Your task to perform on an android device: Search for "macbook pro 13 inch" on bestbuy.com, select the first entry, add it to the cart, then select checkout. Image 0: 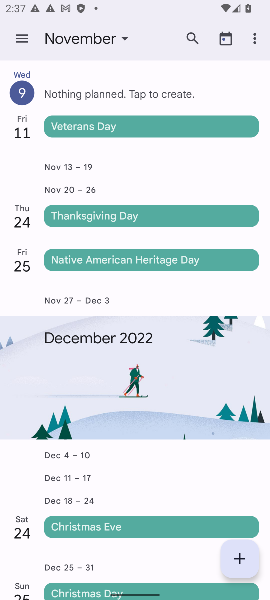
Step 0: press home button
Your task to perform on an android device: Search for "macbook pro 13 inch" on bestbuy.com, select the first entry, add it to the cart, then select checkout. Image 1: 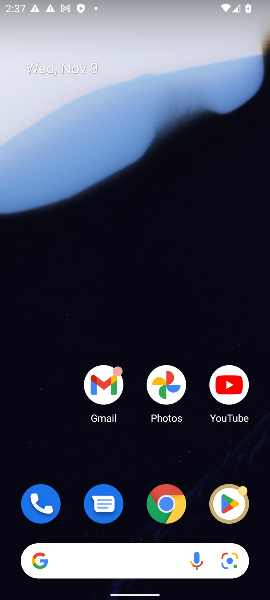
Step 1: click (167, 510)
Your task to perform on an android device: Search for "macbook pro 13 inch" on bestbuy.com, select the first entry, add it to the cart, then select checkout. Image 2: 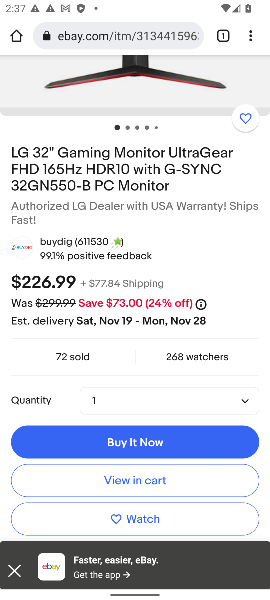
Step 2: click (93, 34)
Your task to perform on an android device: Search for "macbook pro 13 inch" on bestbuy.com, select the first entry, add it to the cart, then select checkout. Image 3: 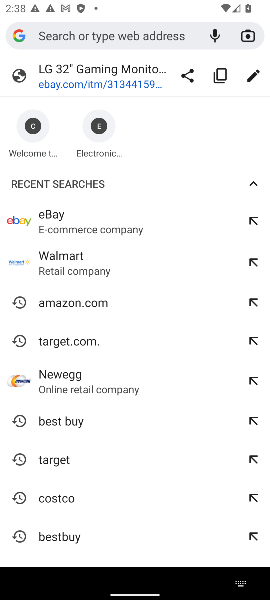
Step 3: type "bestbuy.com"
Your task to perform on an android device: Search for "macbook pro 13 inch" on bestbuy.com, select the first entry, add it to the cart, then select checkout. Image 4: 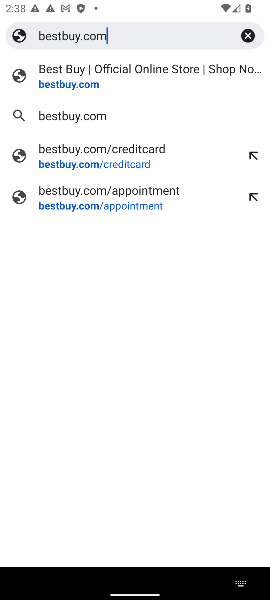
Step 4: click (65, 83)
Your task to perform on an android device: Search for "macbook pro 13 inch" on bestbuy.com, select the first entry, add it to the cart, then select checkout. Image 5: 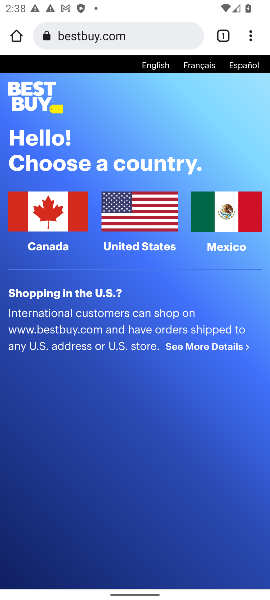
Step 5: click (128, 228)
Your task to perform on an android device: Search for "macbook pro 13 inch" on bestbuy.com, select the first entry, add it to the cart, then select checkout. Image 6: 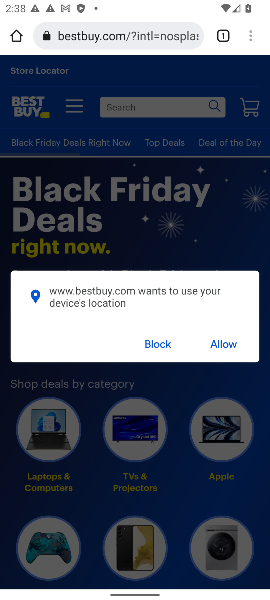
Step 6: click (151, 346)
Your task to perform on an android device: Search for "macbook pro 13 inch" on bestbuy.com, select the first entry, add it to the cart, then select checkout. Image 7: 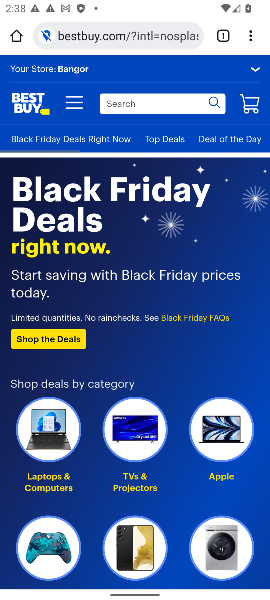
Step 7: click (128, 104)
Your task to perform on an android device: Search for "macbook pro 13 inch" on bestbuy.com, select the first entry, add it to the cart, then select checkout. Image 8: 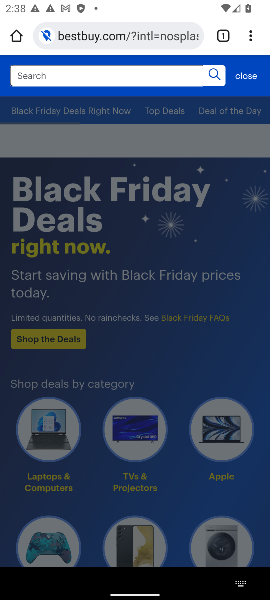
Step 8: type "macbook pro 13 inch"
Your task to perform on an android device: Search for "macbook pro 13 inch" on bestbuy.com, select the first entry, add it to the cart, then select checkout. Image 9: 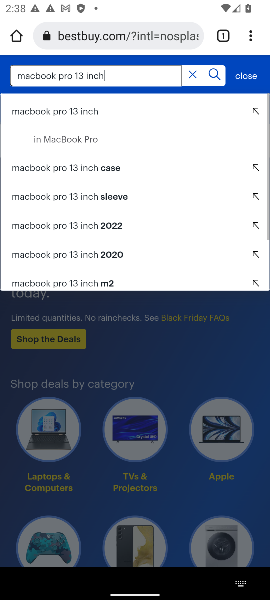
Step 9: click (47, 115)
Your task to perform on an android device: Search for "macbook pro 13 inch" on bestbuy.com, select the first entry, add it to the cart, then select checkout. Image 10: 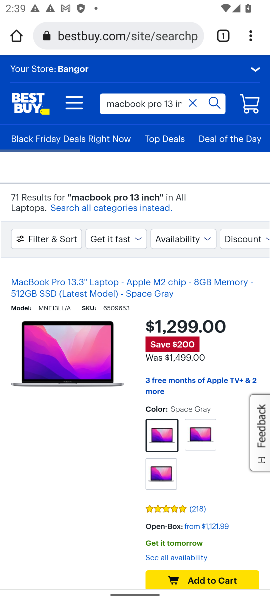
Step 10: task complete